Your task to perform on an android device: Go to battery settings Image 0: 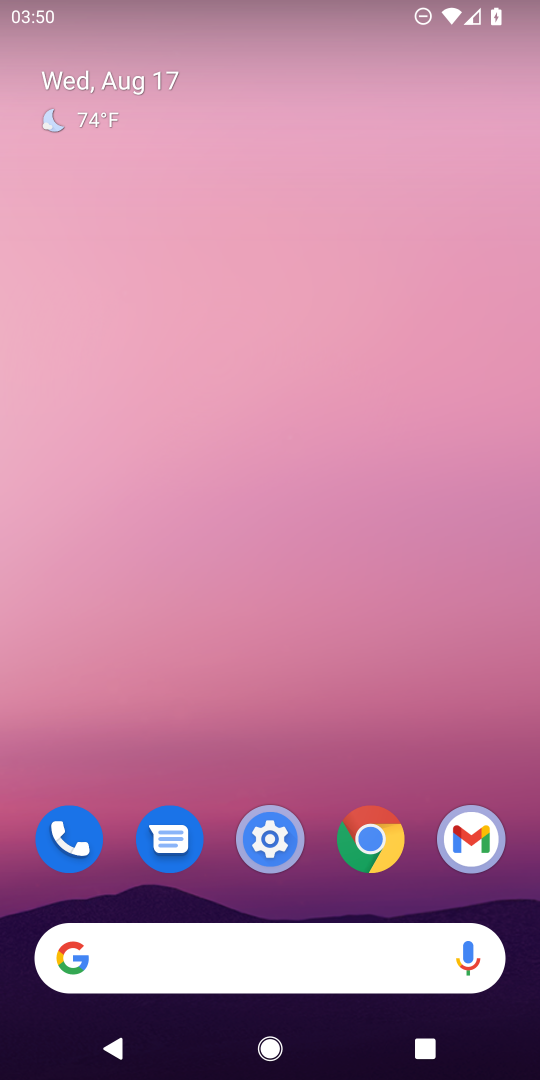
Step 0: drag from (323, 838) to (264, 84)
Your task to perform on an android device: Go to battery settings Image 1: 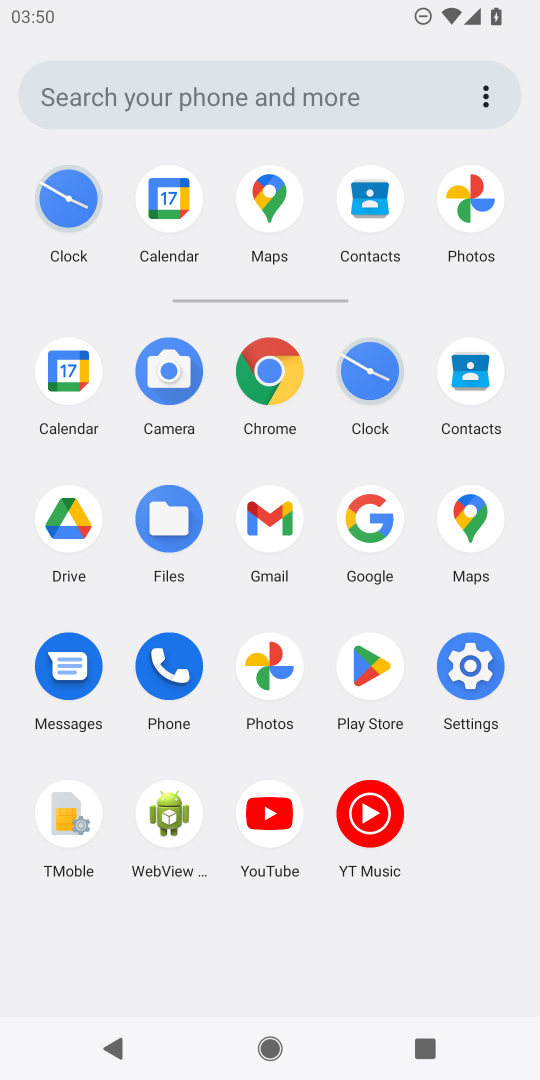
Step 1: click (460, 667)
Your task to perform on an android device: Go to battery settings Image 2: 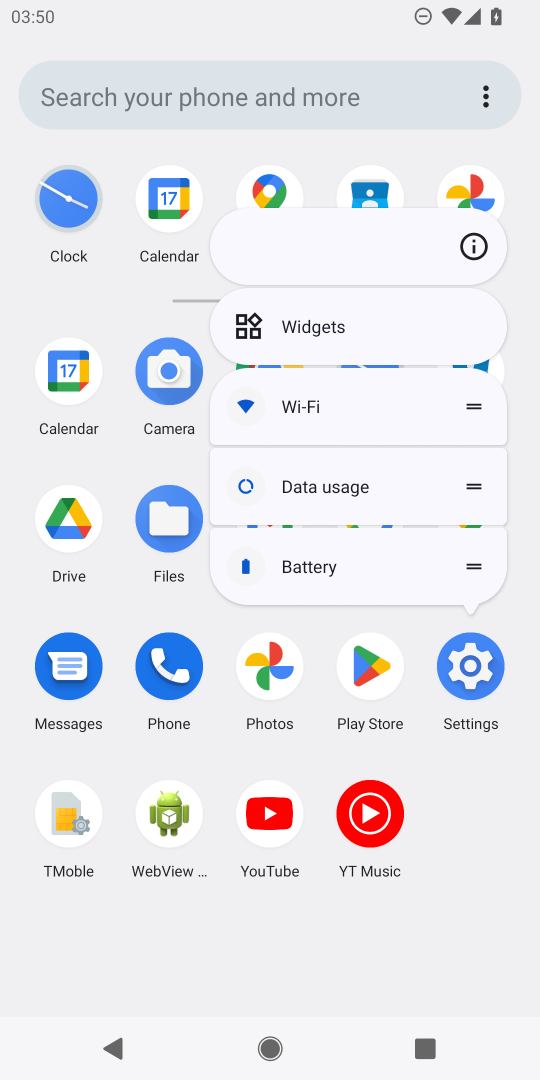
Step 2: click (460, 665)
Your task to perform on an android device: Go to battery settings Image 3: 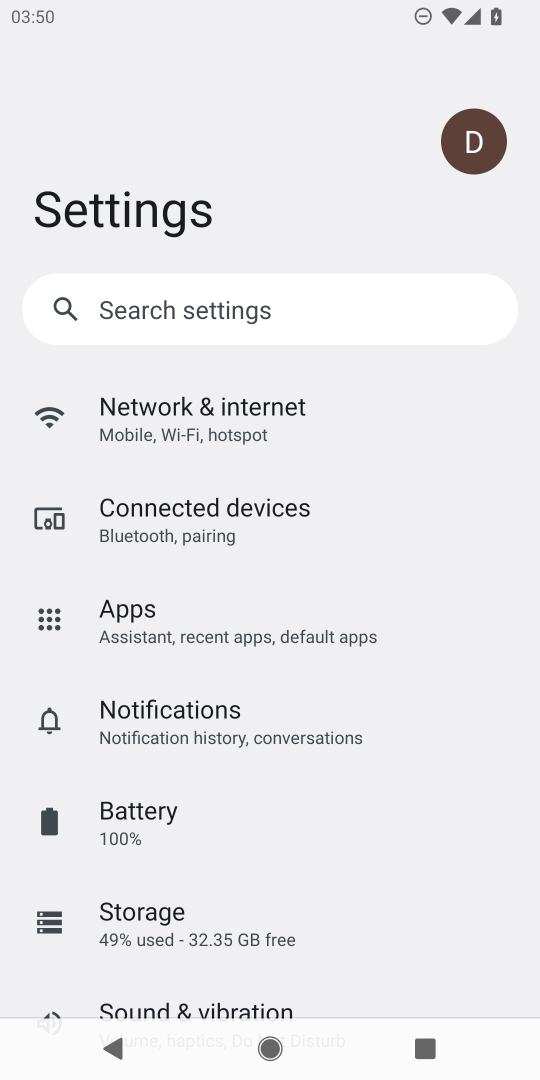
Step 3: click (135, 821)
Your task to perform on an android device: Go to battery settings Image 4: 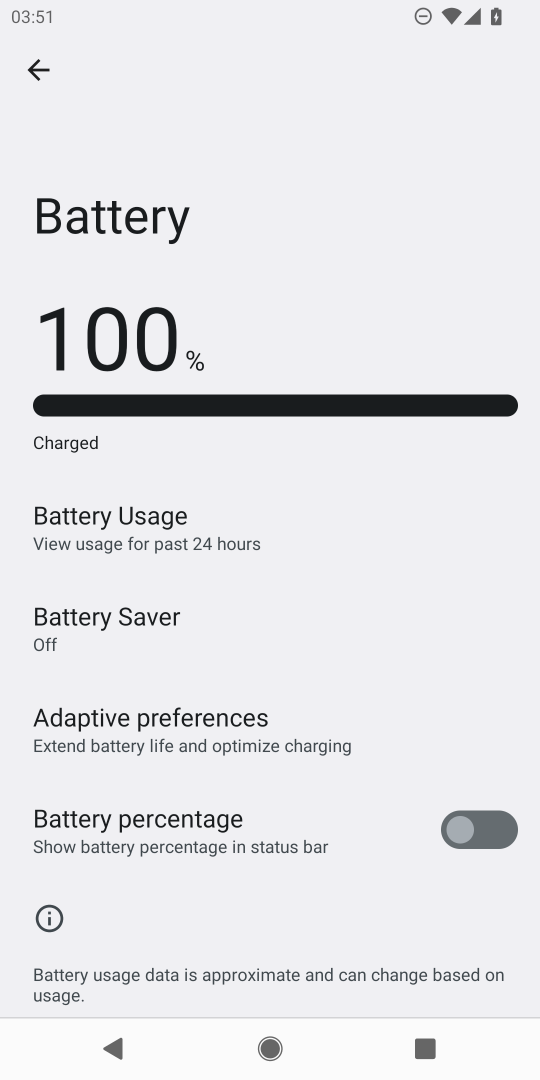
Step 4: task complete